Your task to perform on an android device: turn on the 24-hour format for clock Image 0: 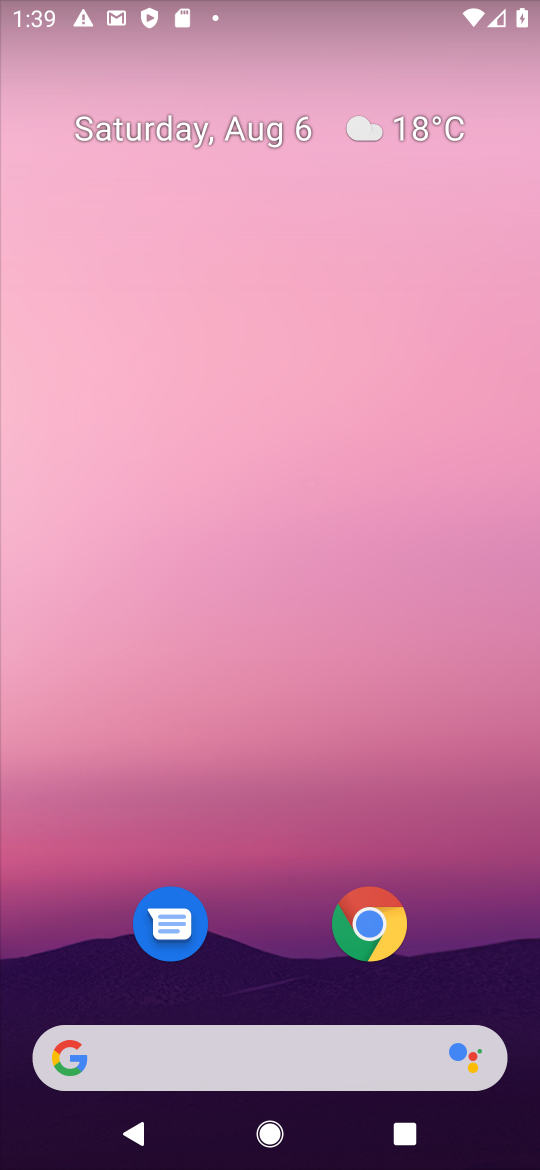
Step 0: drag from (292, 1065) to (393, 34)
Your task to perform on an android device: turn on the 24-hour format for clock Image 1: 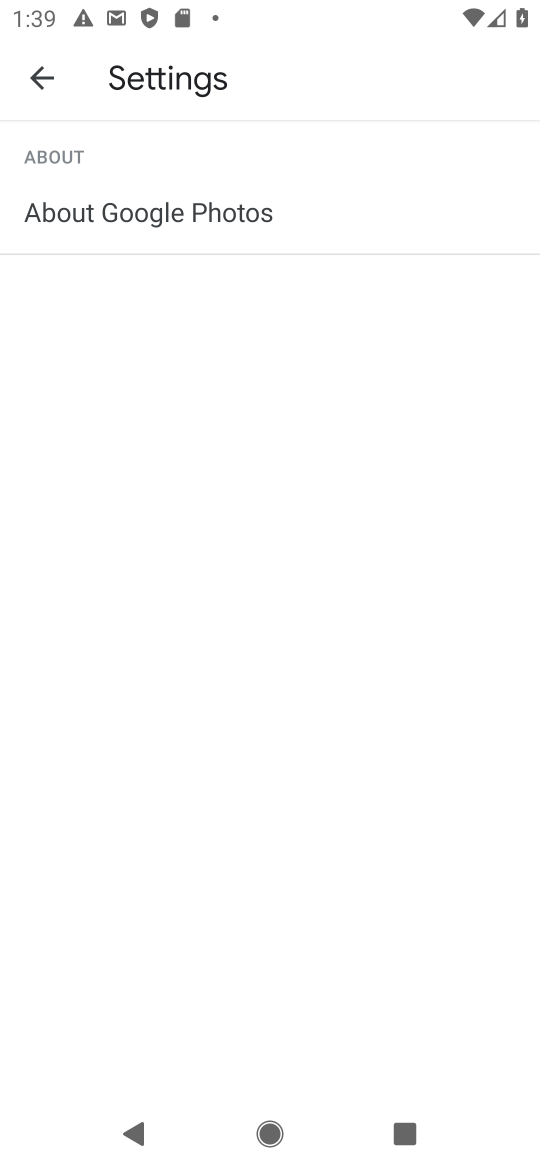
Step 1: press home button
Your task to perform on an android device: turn on the 24-hour format for clock Image 2: 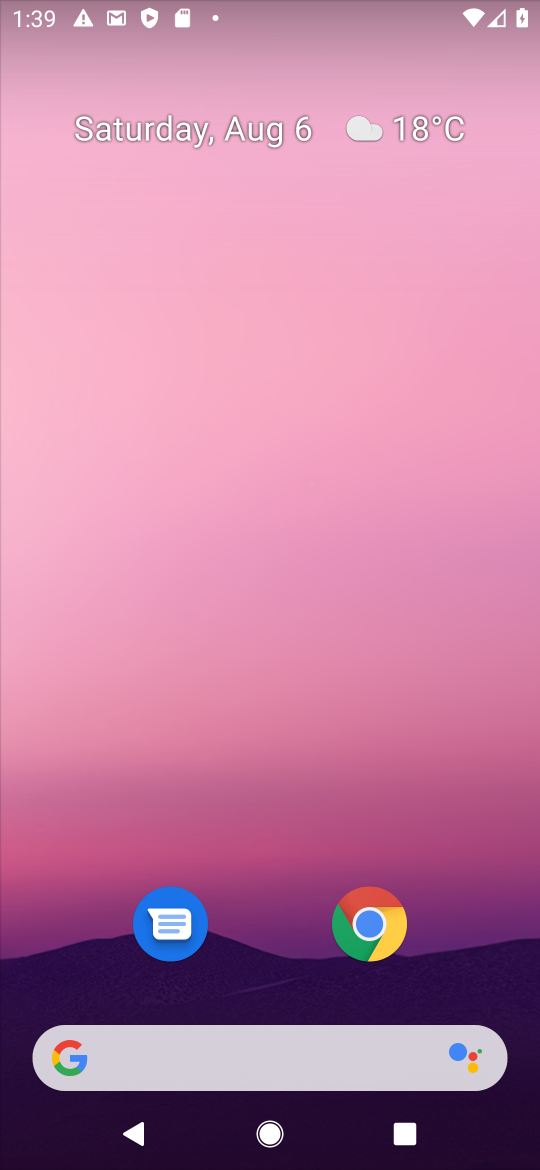
Step 2: drag from (258, 977) to (202, 135)
Your task to perform on an android device: turn on the 24-hour format for clock Image 3: 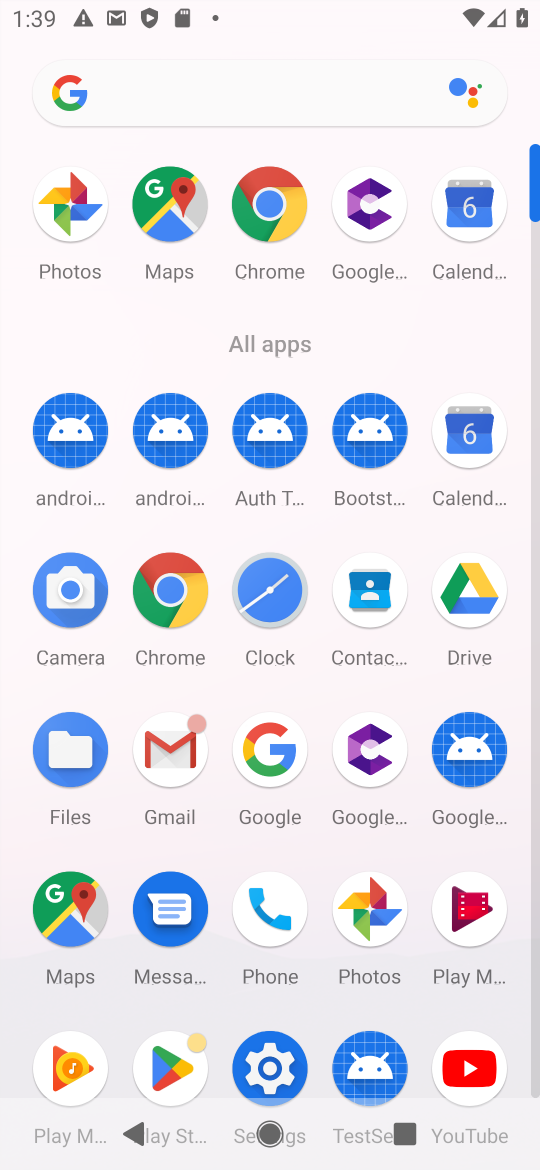
Step 3: click (263, 579)
Your task to perform on an android device: turn on the 24-hour format for clock Image 4: 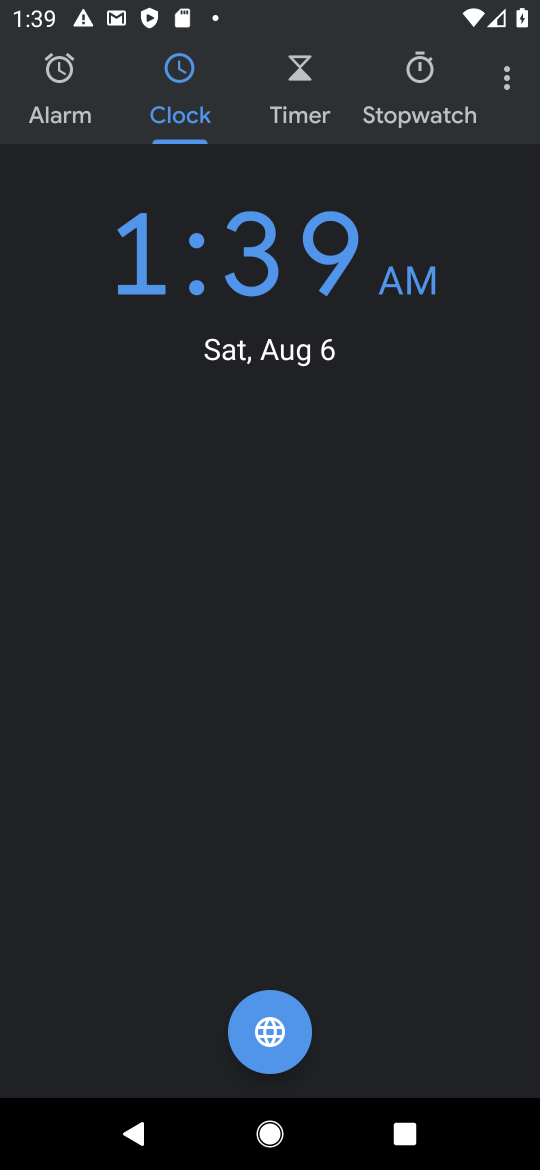
Step 4: click (494, 74)
Your task to perform on an android device: turn on the 24-hour format for clock Image 5: 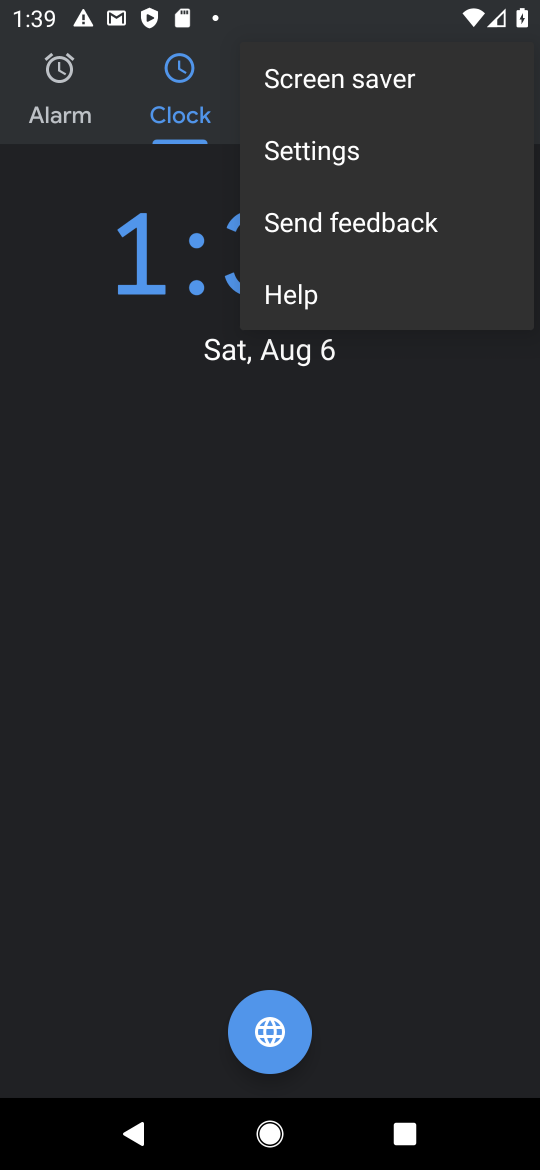
Step 5: click (292, 154)
Your task to perform on an android device: turn on the 24-hour format for clock Image 6: 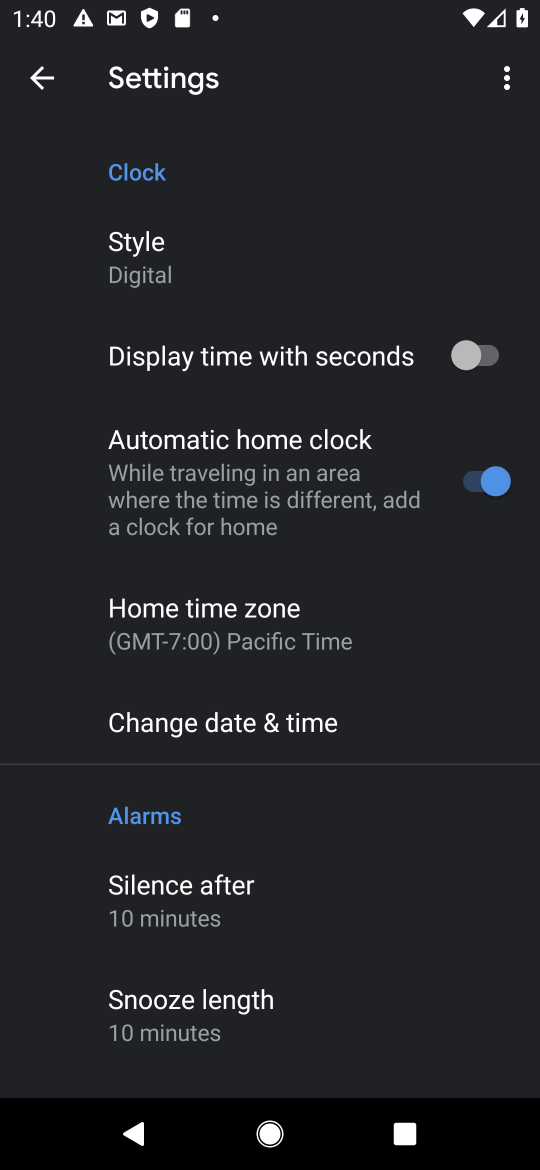
Step 6: click (255, 739)
Your task to perform on an android device: turn on the 24-hour format for clock Image 7: 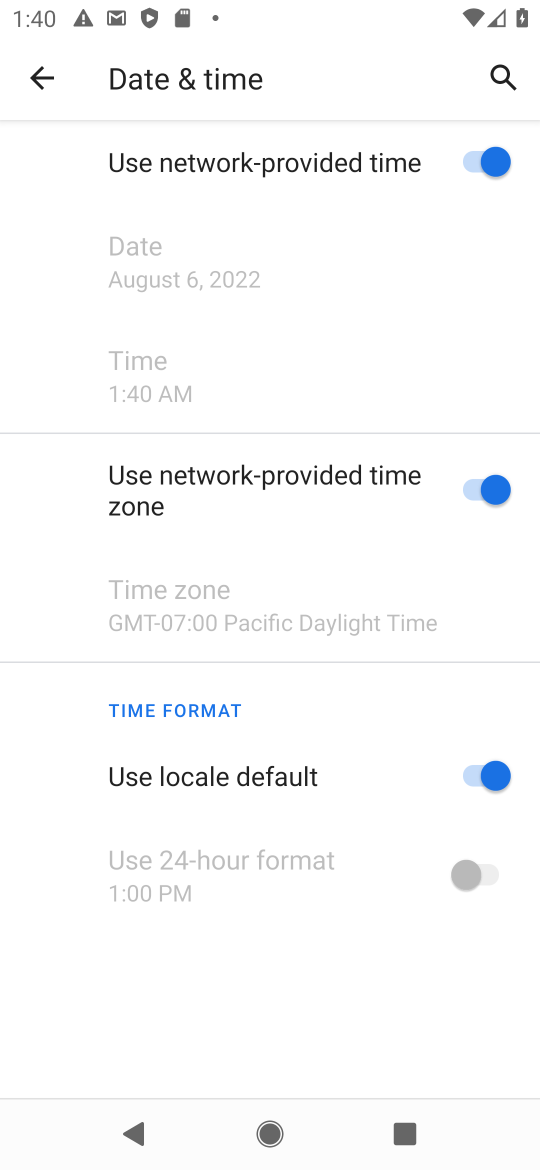
Step 7: click (472, 774)
Your task to perform on an android device: turn on the 24-hour format for clock Image 8: 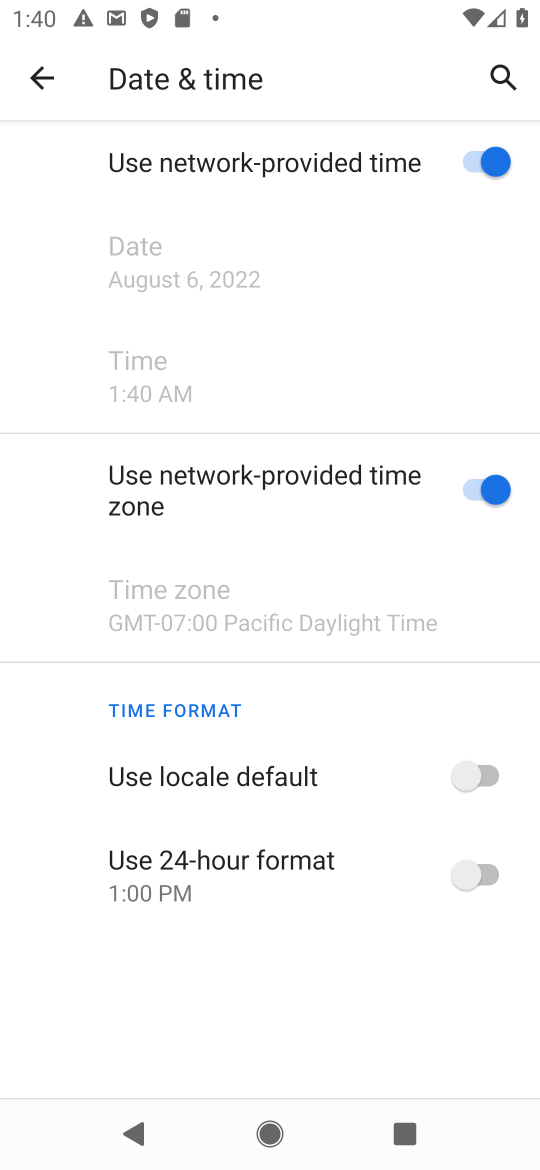
Step 8: click (499, 876)
Your task to perform on an android device: turn on the 24-hour format for clock Image 9: 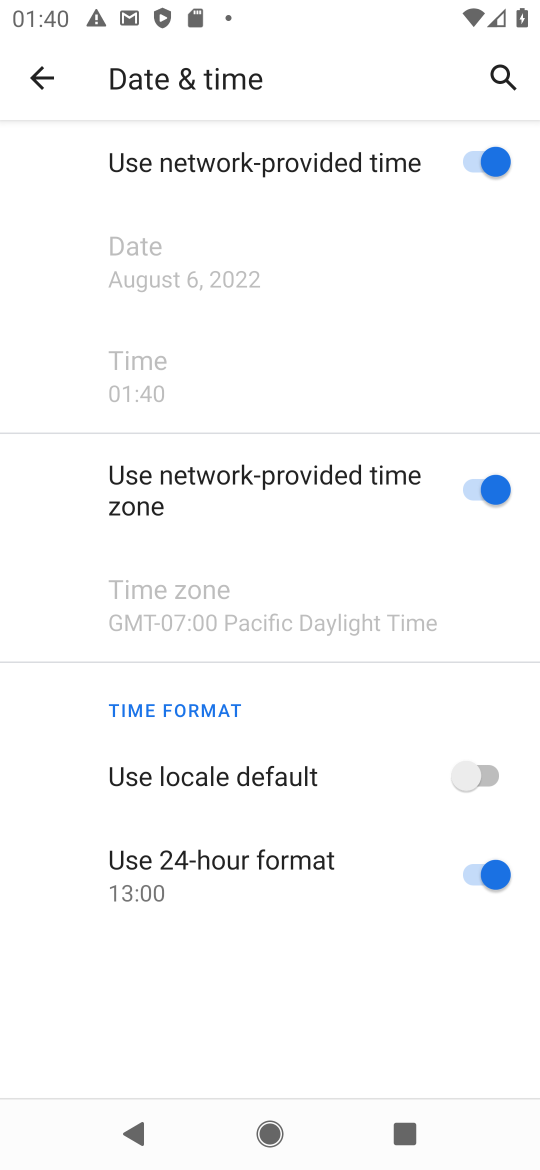
Step 9: task complete